Your task to perform on an android device: toggle notifications settings in the gmail app Image 0: 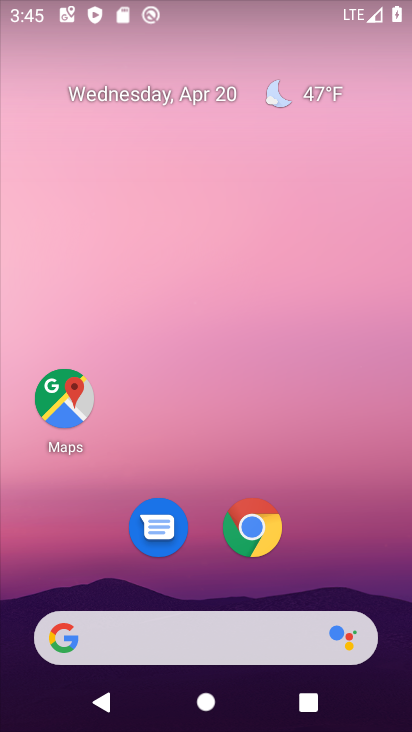
Step 0: drag from (331, 576) to (309, 185)
Your task to perform on an android device: toggle notifications settings in the gmail app Image 1: 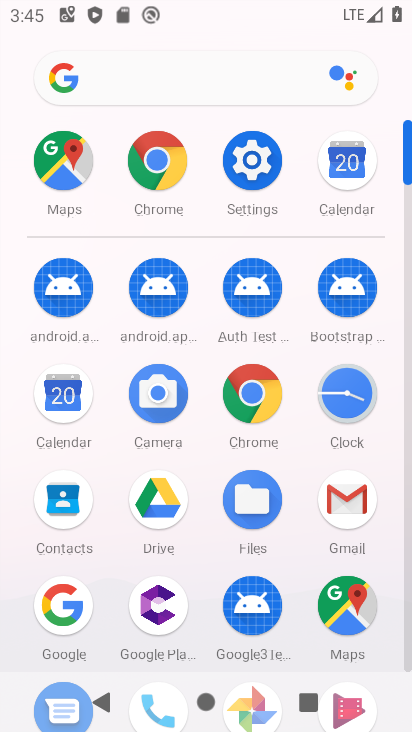
Step 1: click (345, 513)
Your task to perform on an android device: toggle notifications settings in the gmail app Image 2: 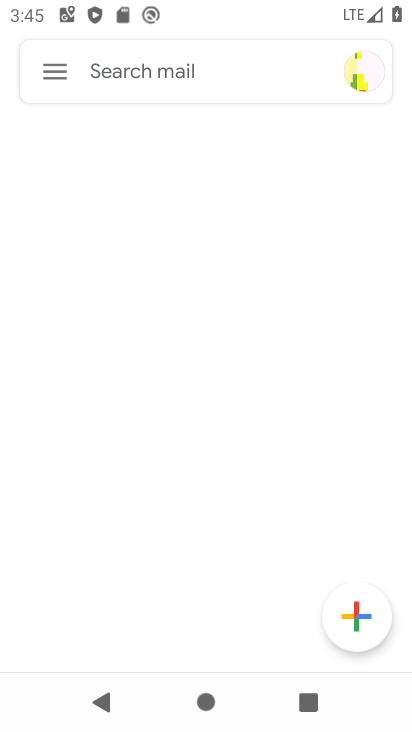
Step 2: click (60, 74)
Your task to perform on an android device: toggle notifications settings in the gmail app Image 3: 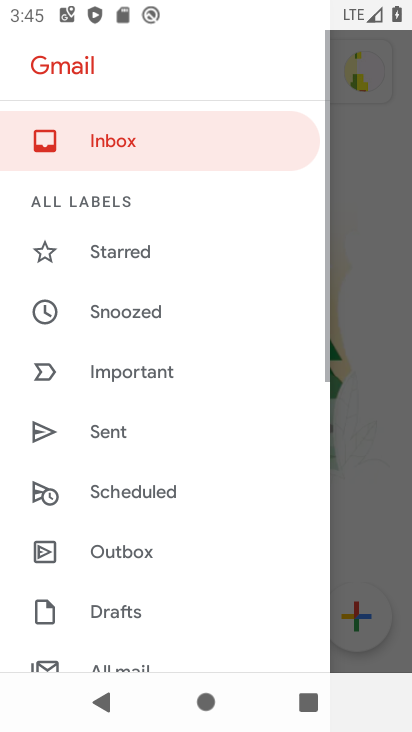
Step 3: drag from (173, 619) to (176, 183)
Your task to perform on an android device: toggle notifications settings in the gmail app Image 4: 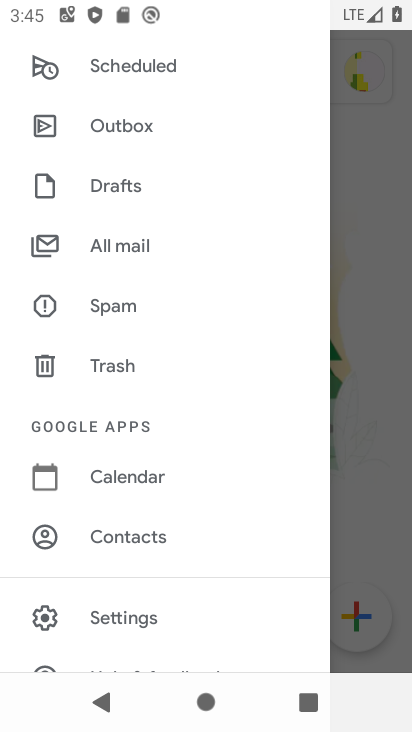
Step 4: click (115, 628)
Your task to perform on an android device: toggle notifications settings in the gmail app Image 5: 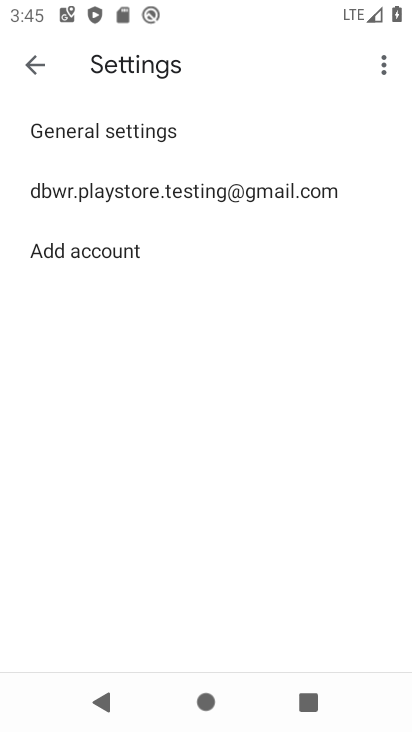
Step 5: click (164, 194)
Your task to perform on an android device: toggle notifications settings in the gmail app Image 6: 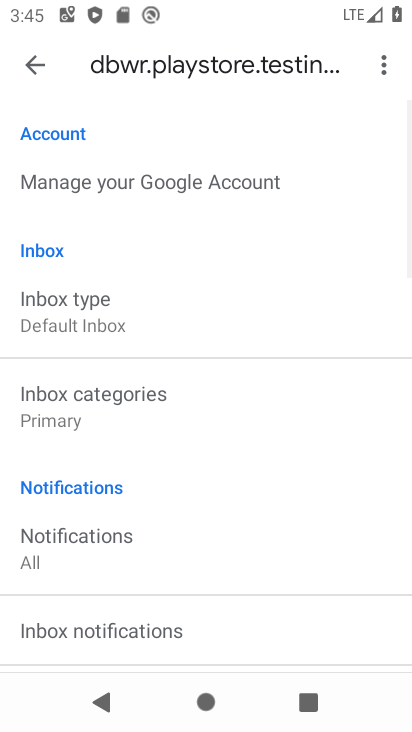
Step 6: click (111, 563)
Your task to perform on an android device: toggle notifications settings in the gmail app Image 7: 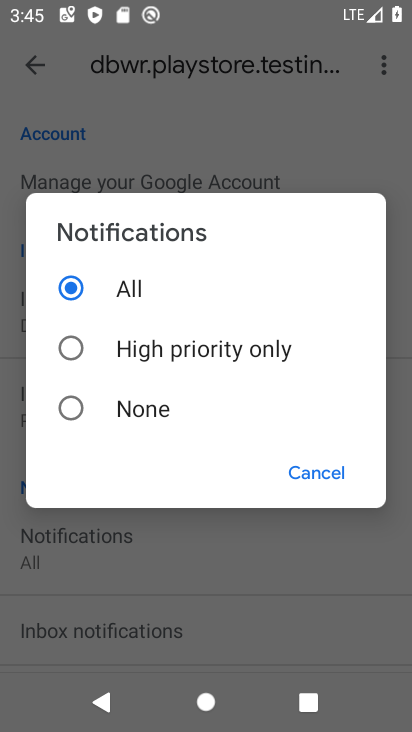
Step 7: click (182, 339)
Your task to perform on an android device: toggle notifications settings in the gmail app Image 8: 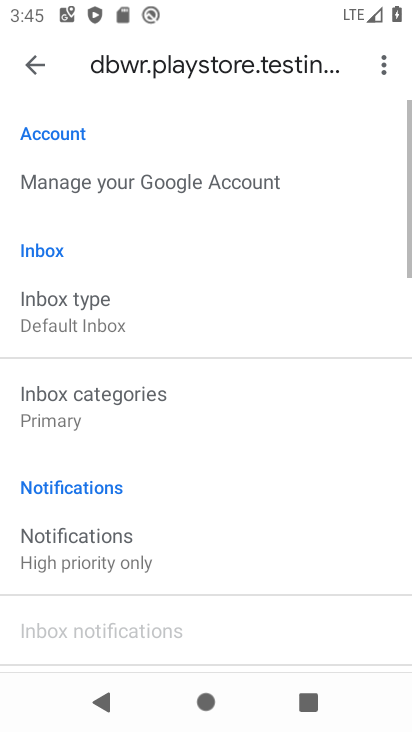
Step 8: task complete